Your task to perform on an android device: Open Yahoo.com Image 0: 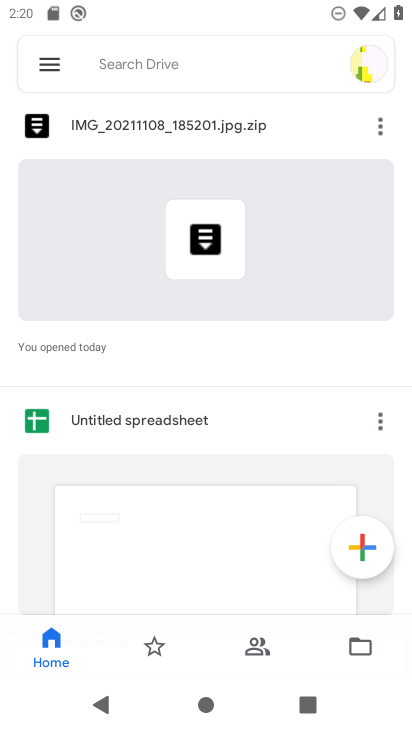
Step 0: press back button
Your task to perform on an android device: Open Yahoo.com Image 1: 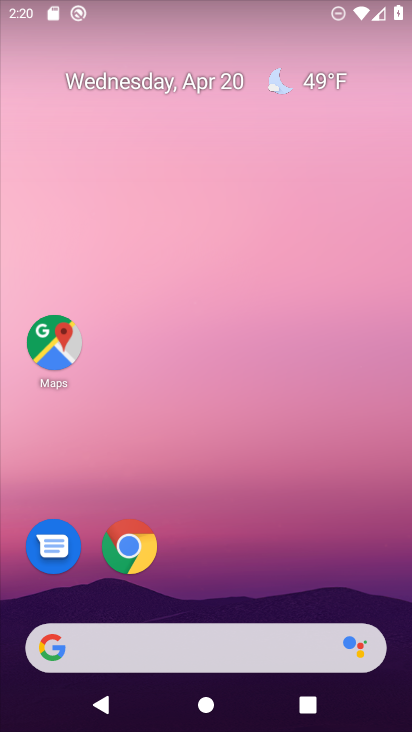
Step 1: click (134, 544)
Your task to perform on an android device: Open Yahoo.com Image 2: 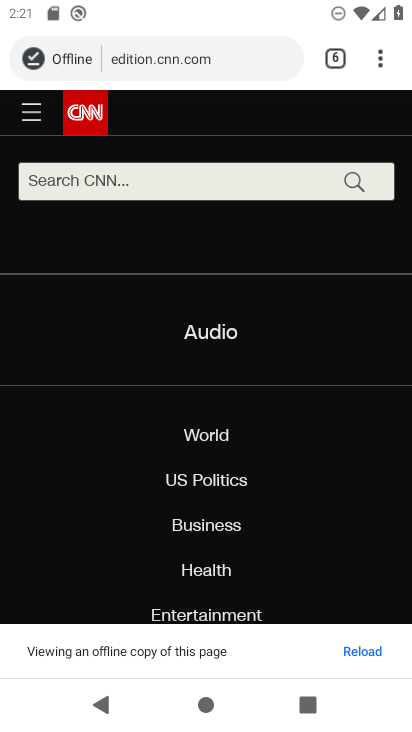
Step 2: click (335, 55)
Your task to perform on an android device: Open Yahoo.com Image 3: 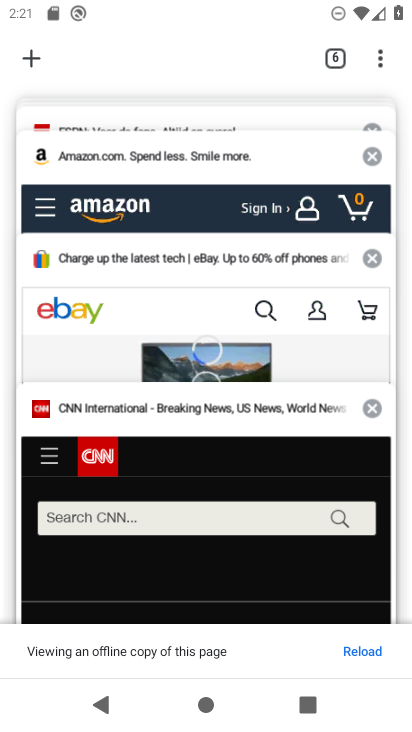
Step 3: click (27, 62)
Your task to perform on an android device: Open Yahoo.com Image 4: 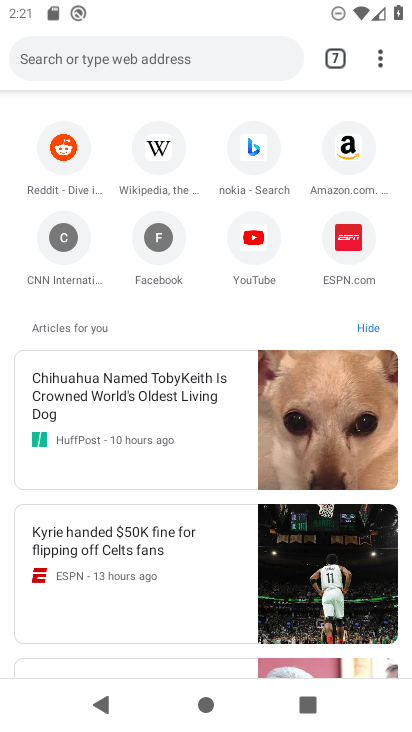
Step 4: click (124, 59)
Your task to perform on an android device: Open Yahoo.com Image 5: 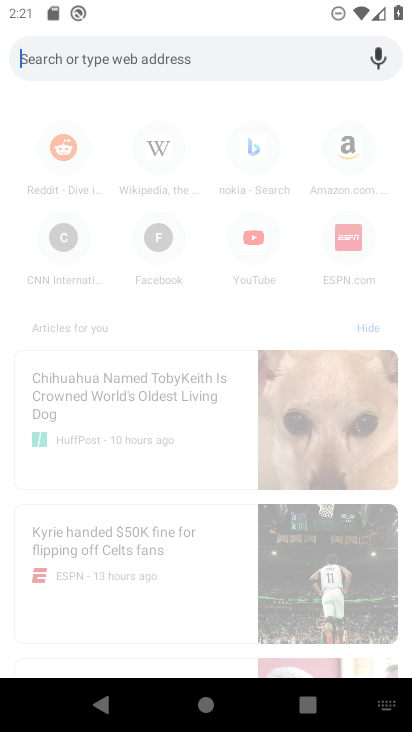
Step 5: type "yahoo.com"
Your task to perform on an android device: Open Yahoo.com Image 6: 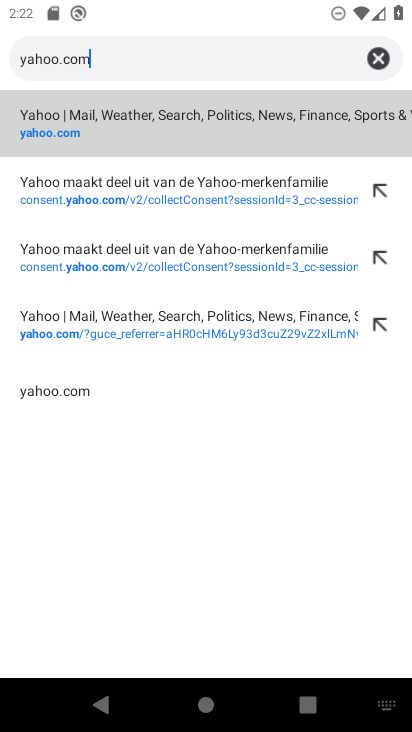
Step 6: click (201, 122)
Your task to perform on an android device: Open Yahoo.com Image 7: 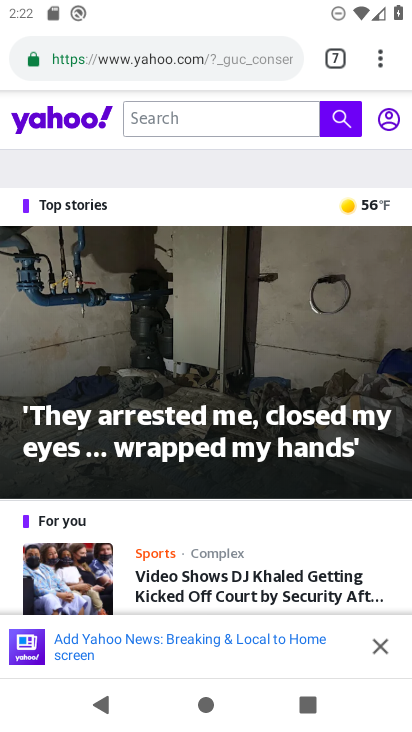
Step 7: task complete